Your task to perform on an android device: Open wifi settings Image 0: 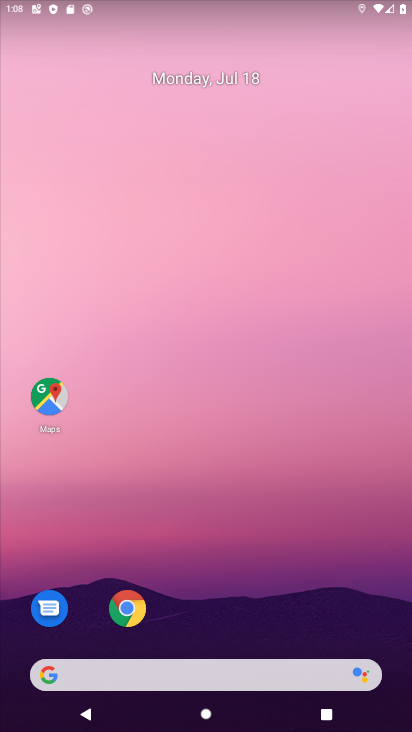
Step 0: drag from (322, 601) to (304, 6)
Your task to perform on an android device: Open wifi settings Image 1: 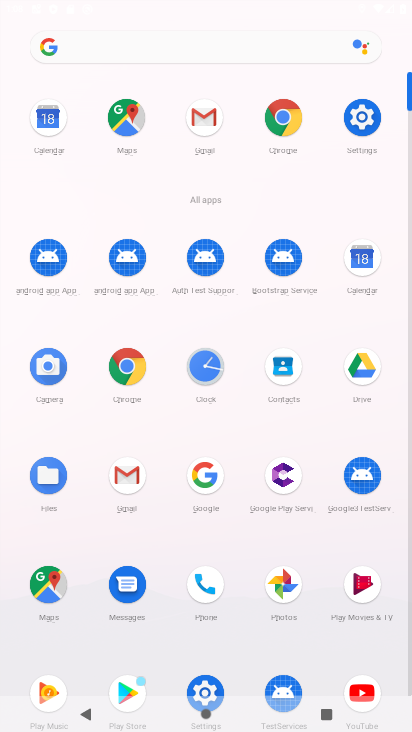
Step 1: click (357, 116)
Your task to perform on an android device: Open wifi settings Image 2: 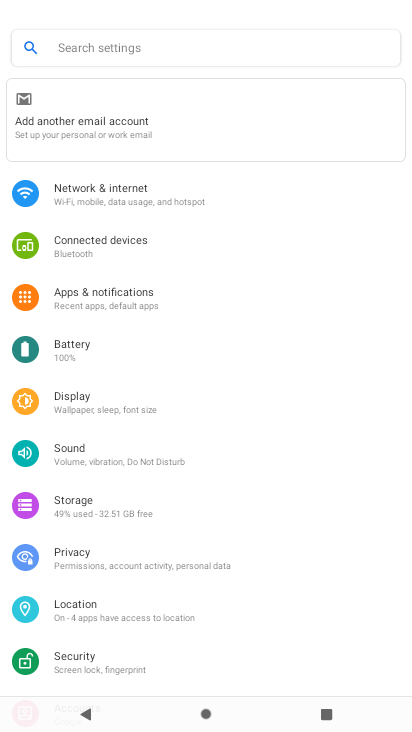
Step 2: click (250, 188)
Your task to perform on an android device: Open wifi settings Image 3: 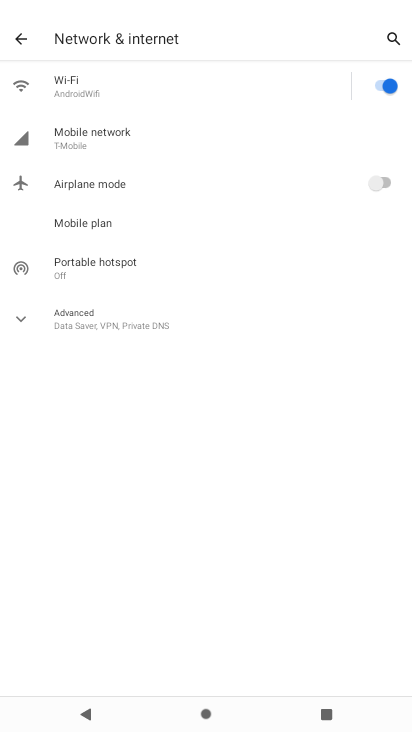
Step 3: click (210, 79)
Your task to perform on an android device: Open wifi settings Image 4: 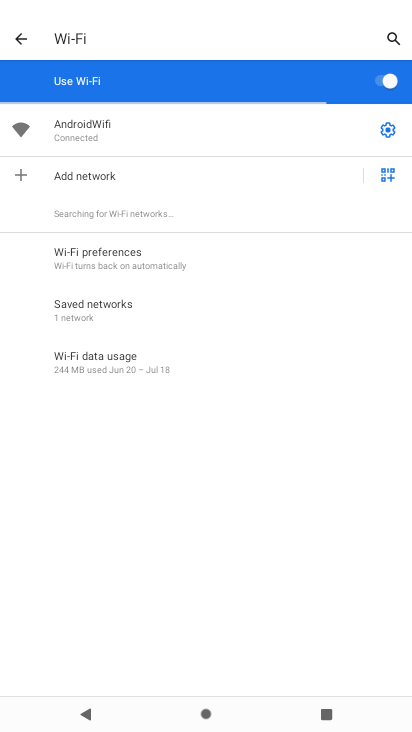
Step 4: task complete